Your task to perform on an android device: Go to settings Image 0: 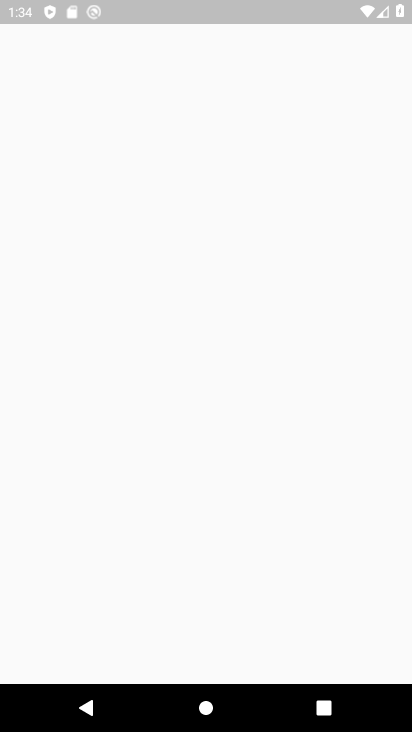
Step 0: press back button
Your task to perform on an android device: Go to settings Image 1: 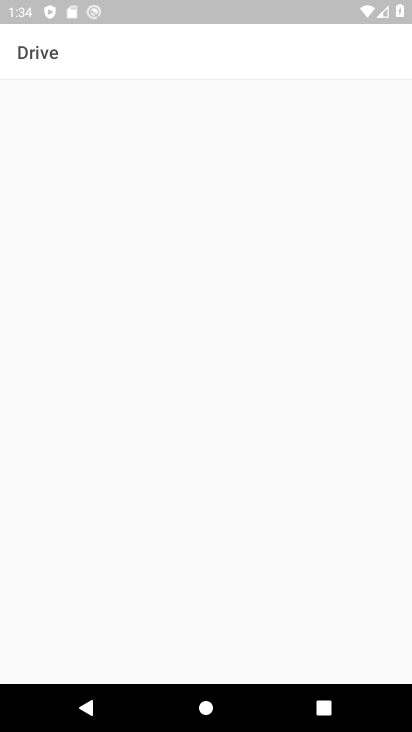
Step 1: press home button
Your task to perform on an android device: Go to settings Image 2: 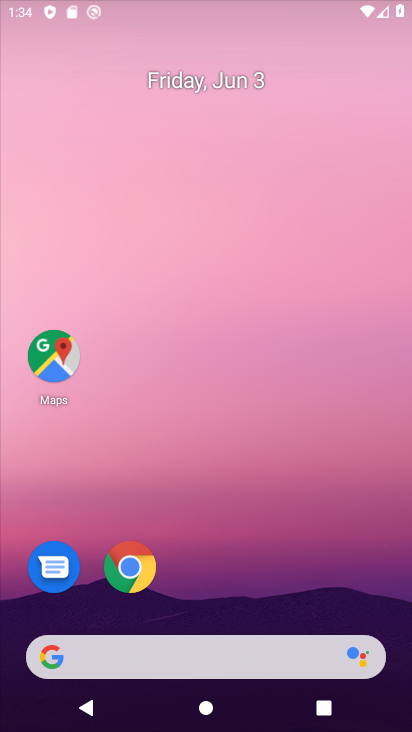
Step 2: drag from (169, 605) to (313, 10)
Your task to perform on an android device: Go to settings Image 3: 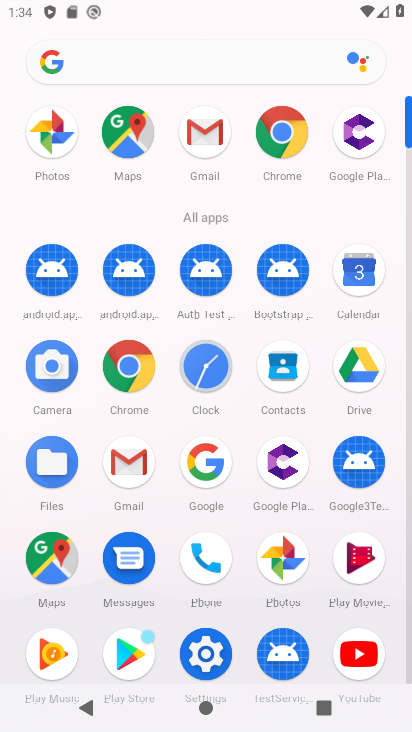
Step 3: click (202, 668)
Your task to perform on an android device: Go to settings Image 4: 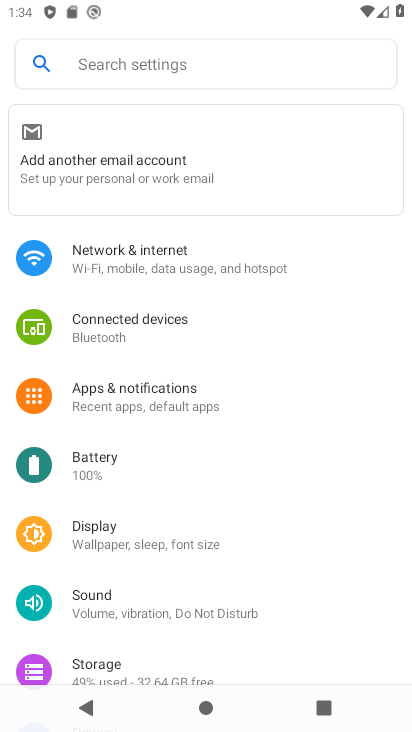
Step 4: task complete